Your task to perform on an android device: Clear the shopping cart on ebay. Add usb-c to the cart on ebay, then select checkout. Image 0: 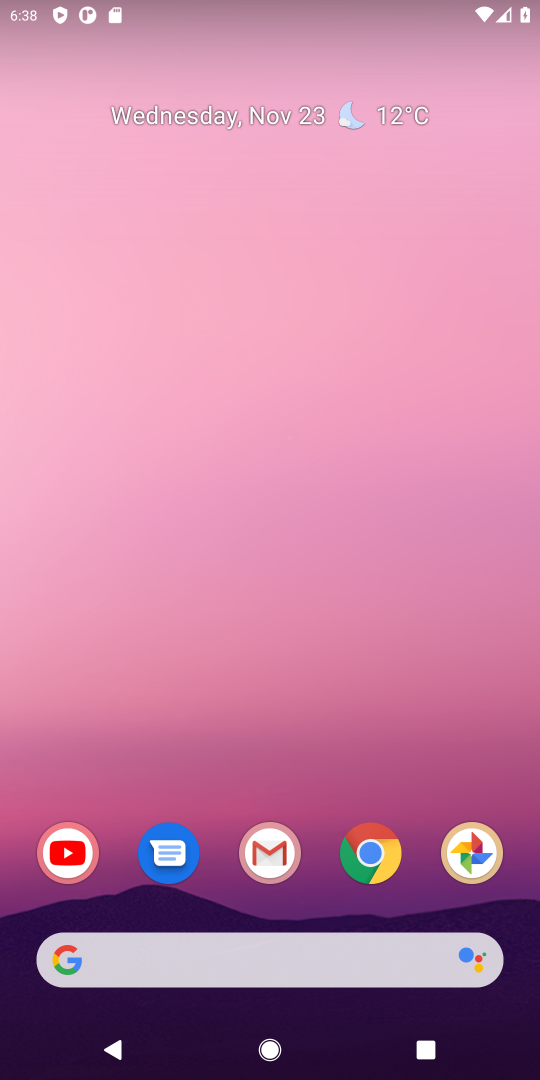
Step 0: click (375, 861)
Your task to perform on an android device: Clear the shopping cart on ebay. Add usb-c to the cart on ebay, then select checkout. Image 1: 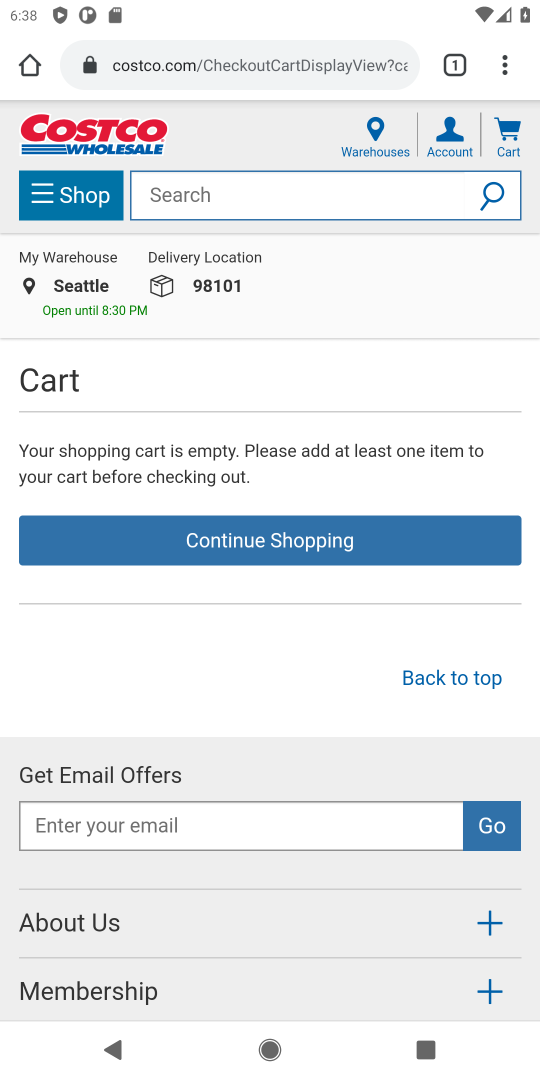
Step 1: click (228, 62)
Your task to perform on an android device: Clear the shopping cart on ebay. Add usb-c to the cart on ebay, then select checkout. Image 2: 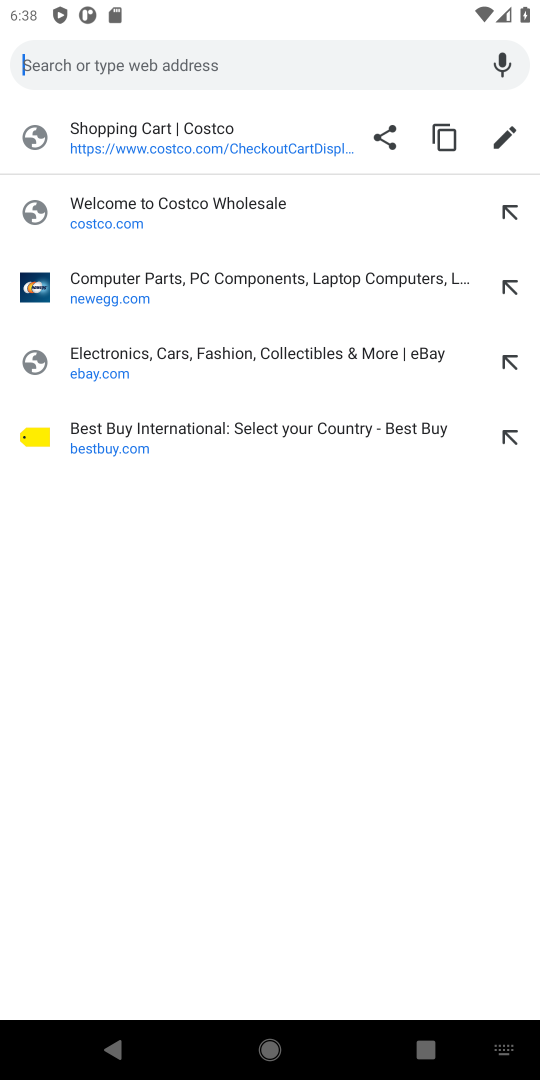
Step 2: click (79, 360)
Your task to perform on an android device: Clear the shopping cart on ebay. Add usb-c to the cart on ebay, then select checkout. Image 3: 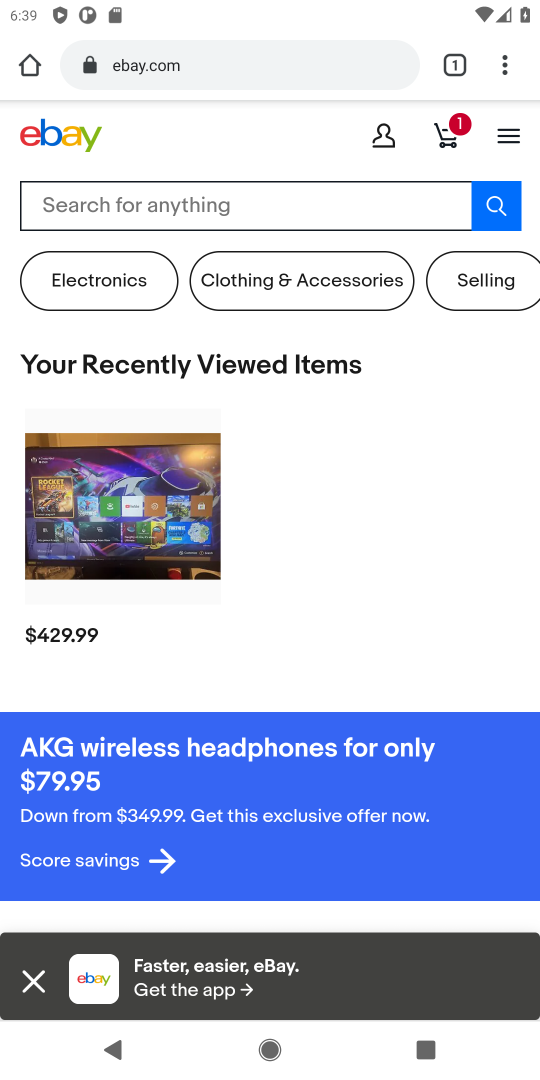
Step 3: click (456, 135)
Your task to perform on an android device: Clear the shopping cart on ebay. Add usb-c to the cart on ebay, then select checkout. Image 4: 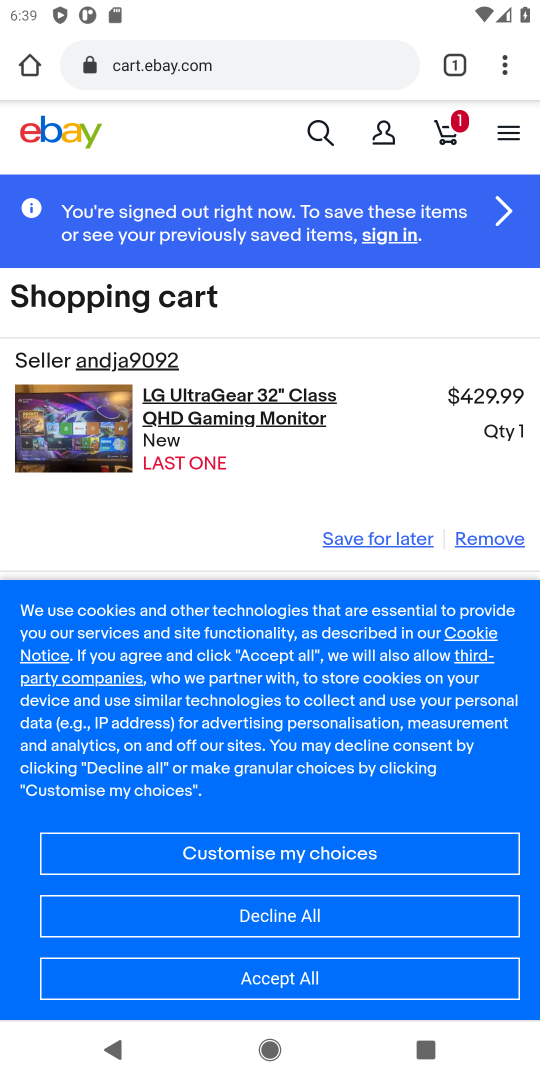
Step 4: click (495, 542)
Your task to perform on an android device: Clear the shopping cart on ebay. Add usb-c to the cart on ebay, then select checkout. Image 5: 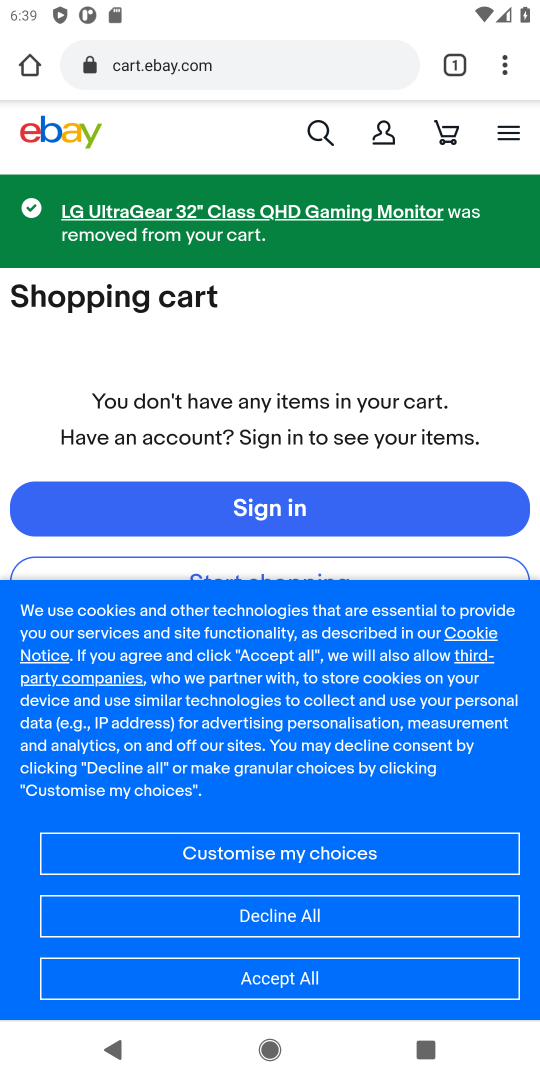
Step 5: click (322, 137)
Your task to perform on an android device: Clear the shopping cart on ebay. Add usb-c to the cart on ebay, then select checkout. Image 6: 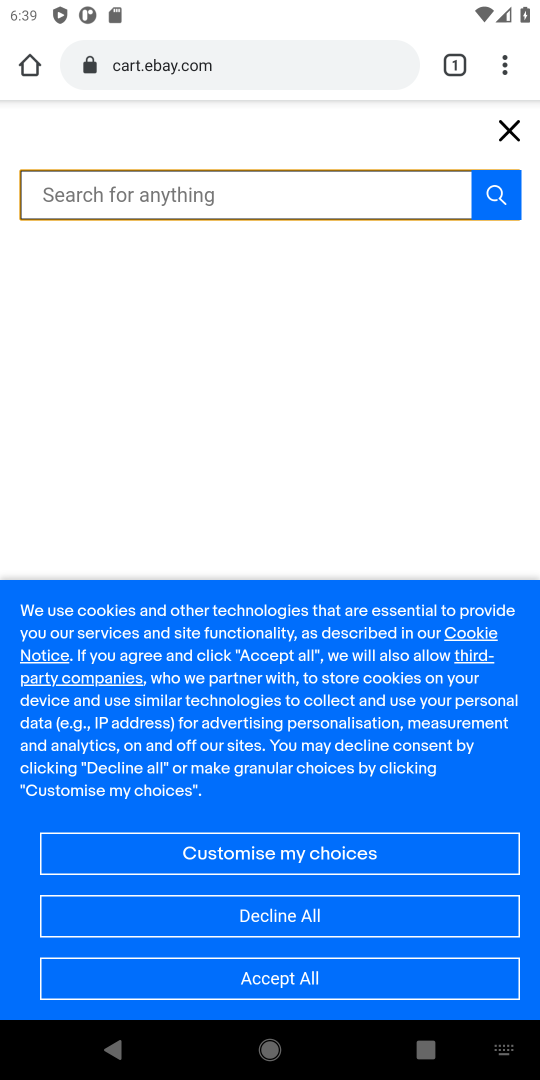
Step 6: type "usb-c "
Your task to perform on an android device: Clear the shopping cart on ebay. Add usb-c to the cart on ebay, then select checkout. Image 7: 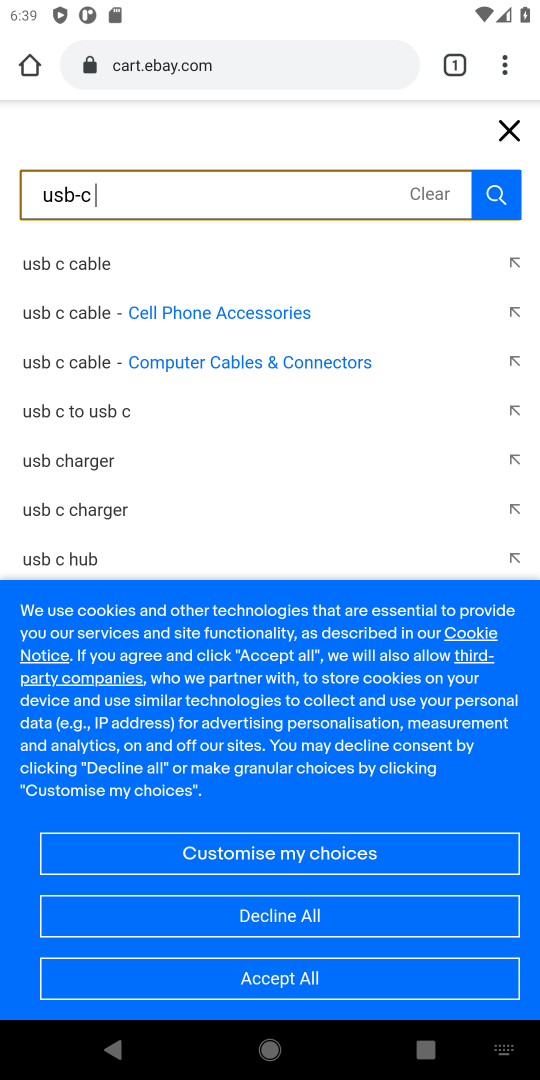
Step 7: click (72, 272)
Your task to perform on an android device: Clear the shopping cart on ebay. Add usb-c to the cart on ebay, then select checkout. Image 8: 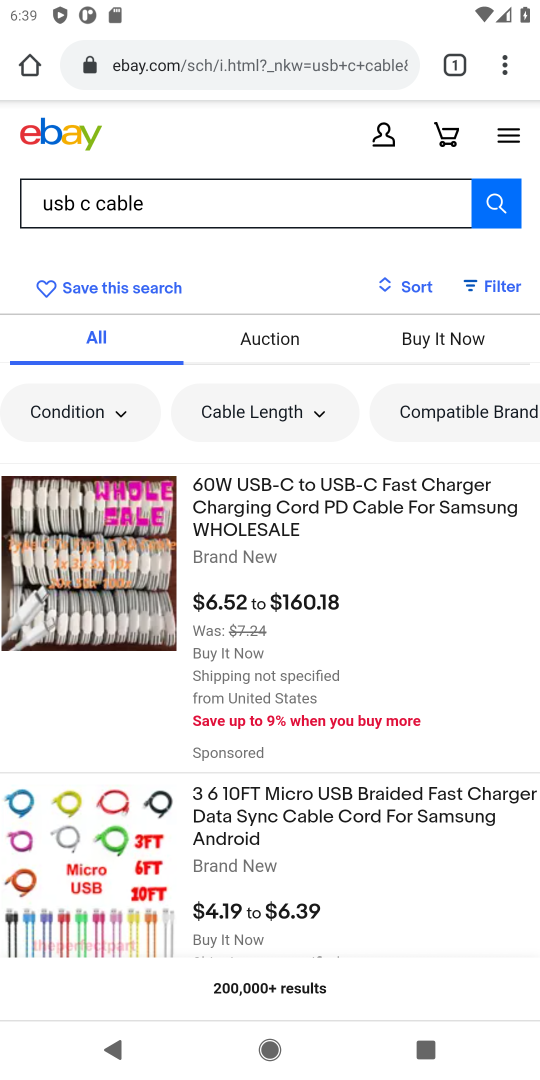
Step 8: click (105, 606)
Your task to perform on an android device: Clear the shopping cart on ebay. Add usb-c to the cart on ebay, then select checkout. Image 9: 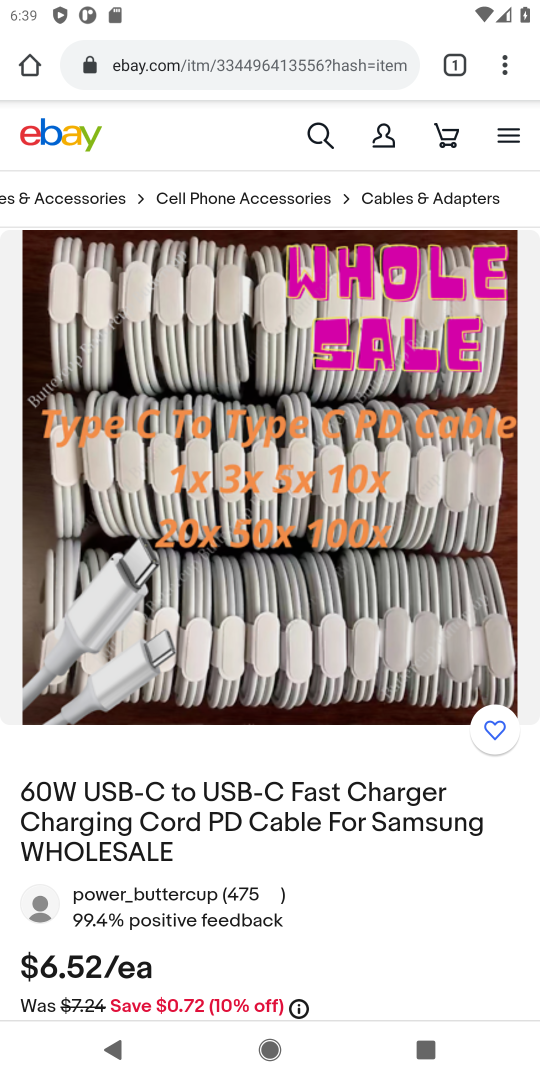
Step 9: drag from (305, 769) to (246, 364)
Your task to perform on an android device: Clear the shopping cart on ebay. Add usb-c to the cart on ebay, then select checkout. Image 10: 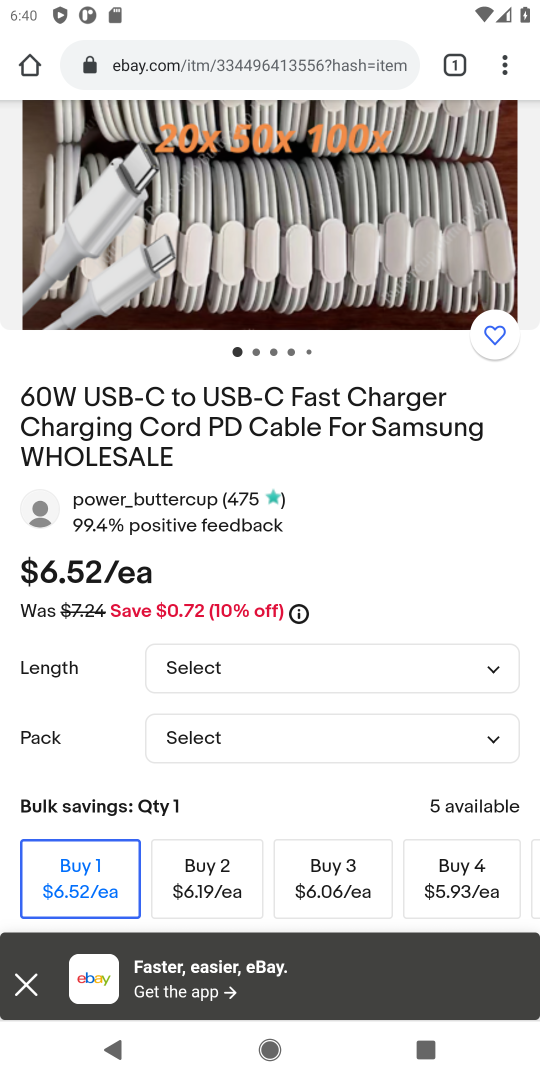
Step 10: drag from (255, 730) to (211, 318)
Your task to perform on an android device: Clear the shopping cart on ebay. Add usb-c to the cart on ebay, then select checkout. Image 11: 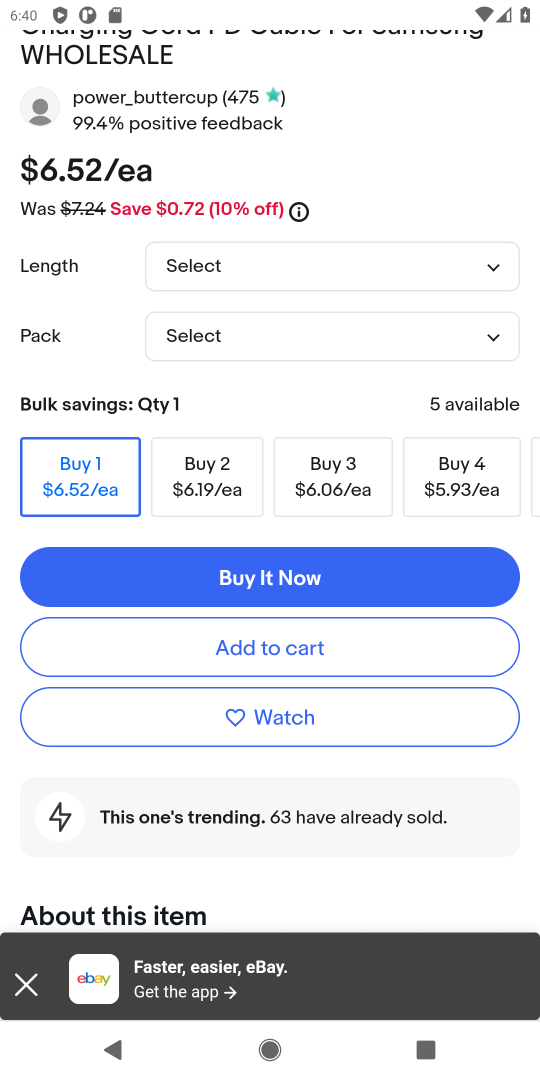
Step 11: click (223, 642)
Your task to perform on an android device: Clear the shopping cart on ebay. Add usb-c to the cart on ebay, then select checkout. Image 12: 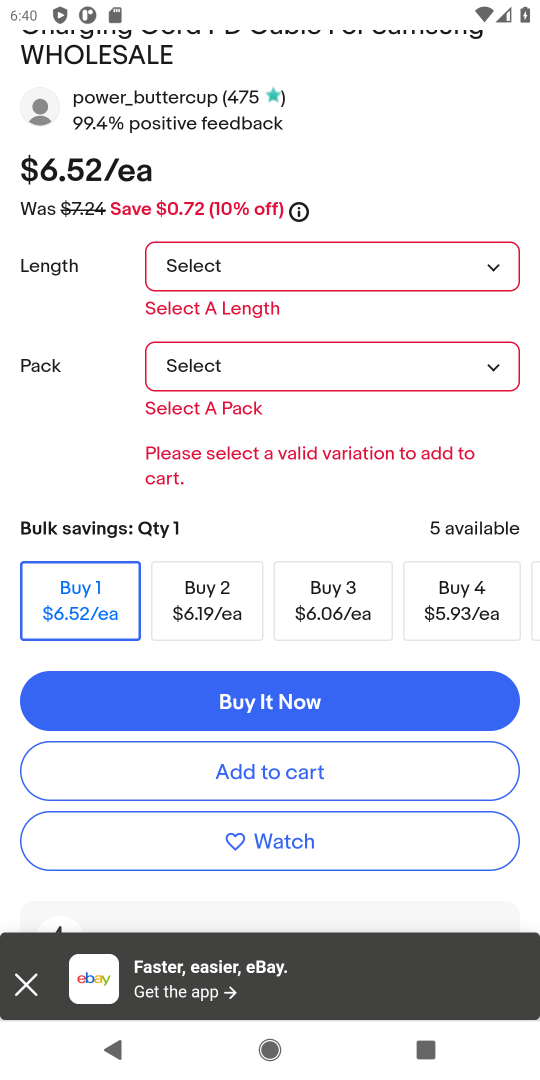
Step 12: click (491, 268)
Your task to perform on an android device: Clear the shopping cart on ebay. Add usb-c to the cart on ebay, then select checkout. Image 13: 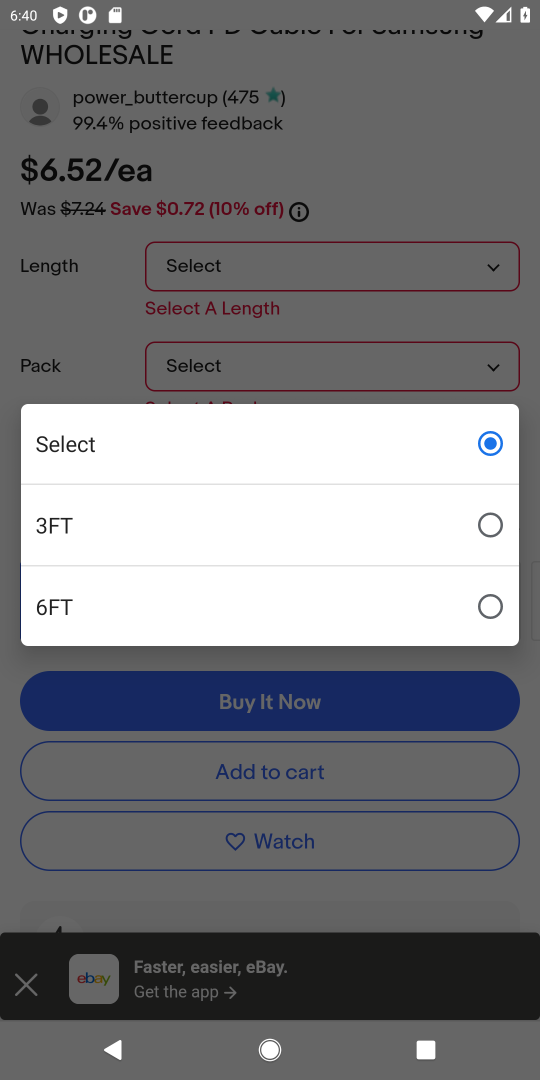
Step 13: click (56, 525)
Your task to perform on an android device: Clear the shopping cart on ebay. Add usb-c to the cart on ebay, then select checkout. Image 14: 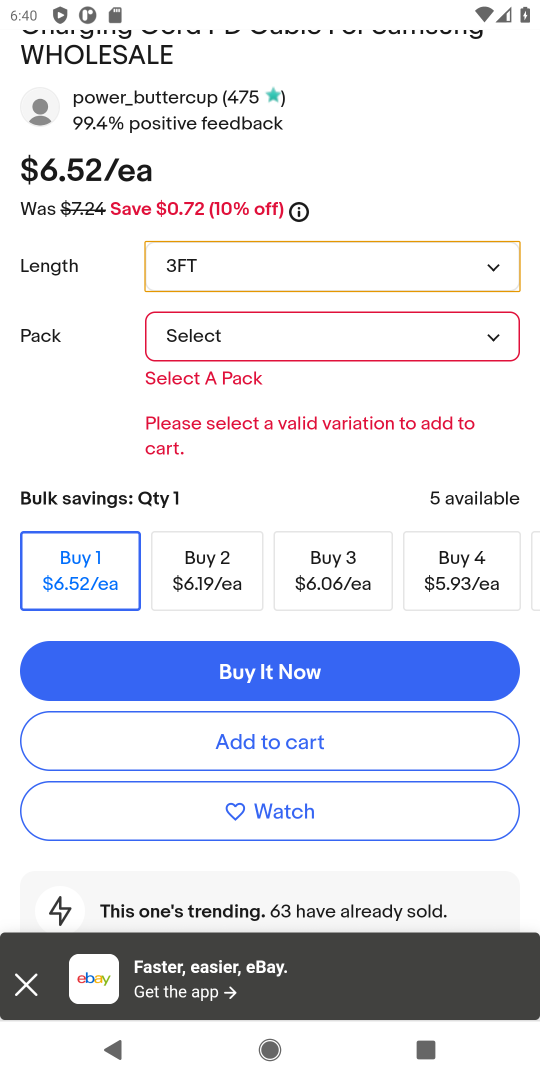
Step 14: click (509, 338)
Your task to perform on an android device: Clear the shopping cart on ebay. Add usb-c to the cart on ebay, then select checkout. Image 15: 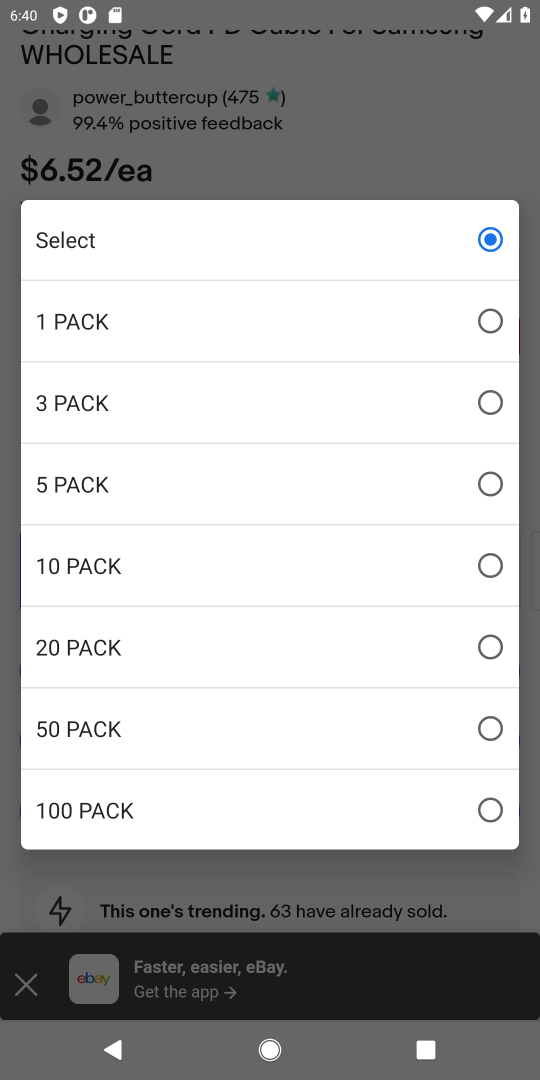
Step 15: click (51, 332)
Your task to perform on an android device: Clear the shopping cart on ebay. Add usb-c to the cart on ebay, then select checkout. Image 16: 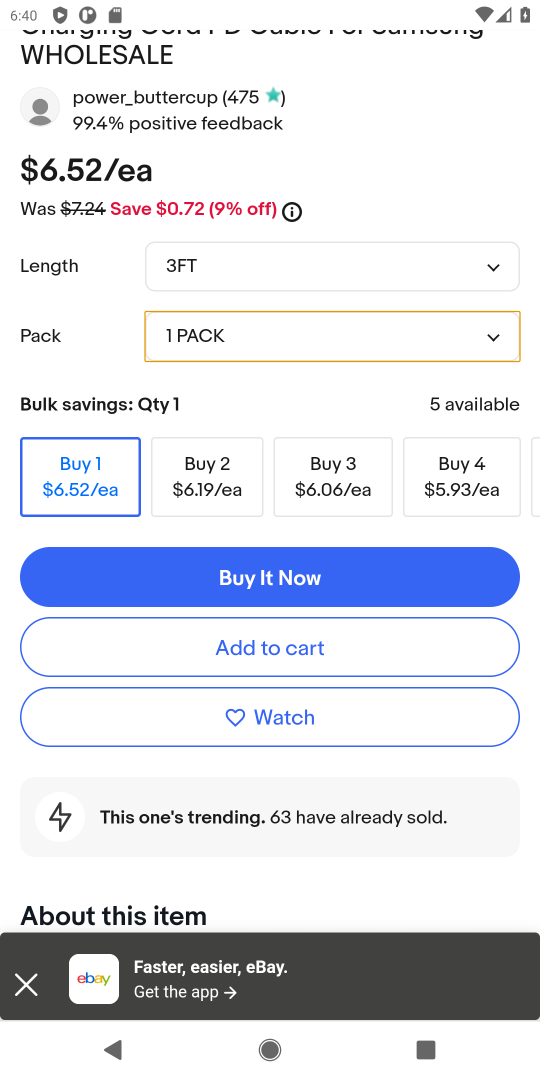
Step 16: click (269, 653)
Your task to perform on an android device: Clear the shopping cart on ebay. Add usb-c to the cart on ebay, then select checkout. Image 17: 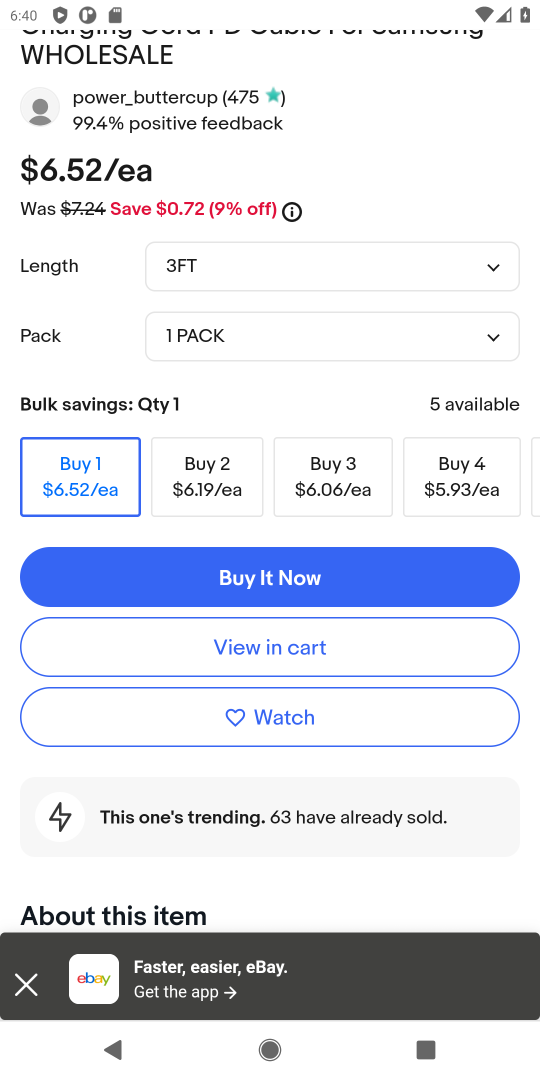
Step 17: click (269, 653)
Your task to perform on an android device: Clear the shopping cart on ebay. Add usb-c to the cart on ebay, then select checkout. Image 18: 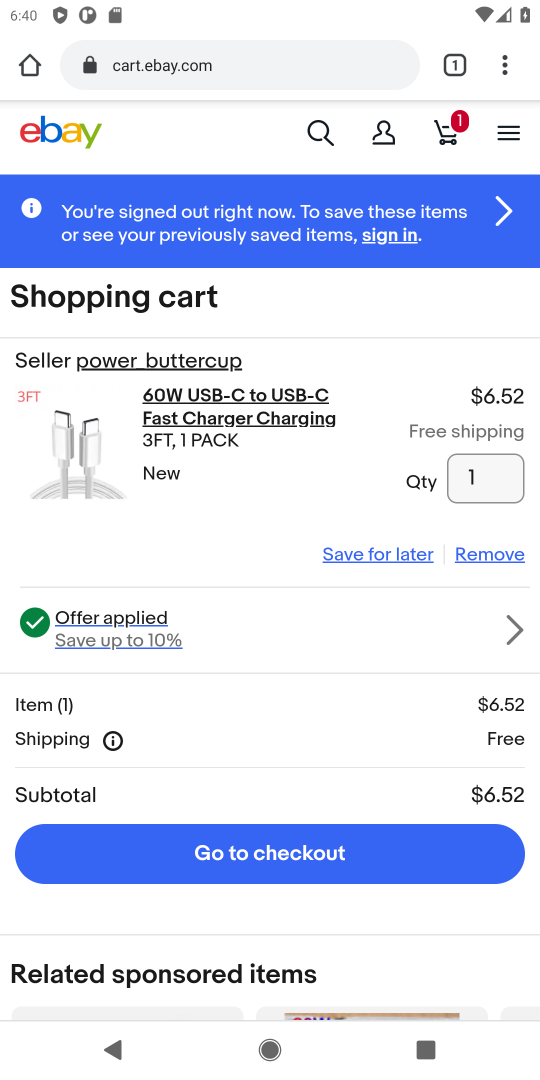
Step 18: click (244, 845)
Your task to perform on an android device: Clear the shopping cart on ebay. Add usb-c to the cart on ebay, then select checkout. Image 19: 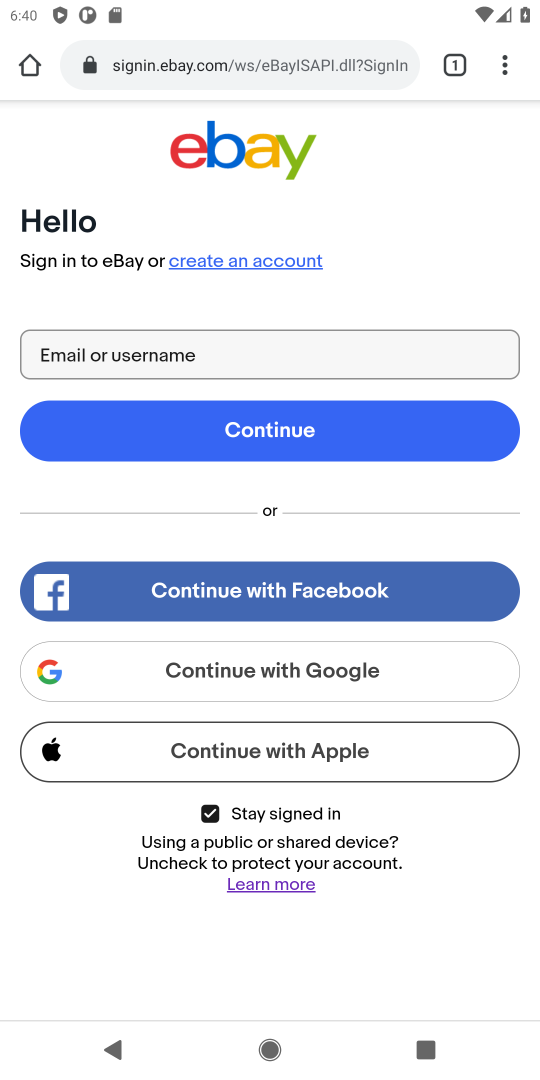
Step 19: task complete